Your task to perform on an android device: Search for "bose soundsport free" on target.com, select the first entry, and add it to the cart. Image 0: 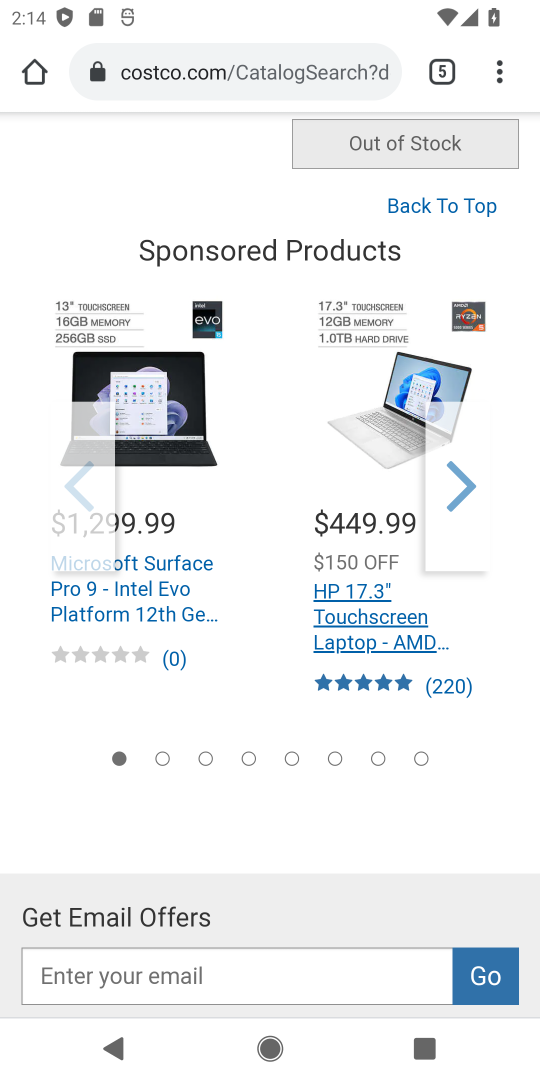
Step 0: press home button
Your task to perform on an android device: Search for "bose soundsport free" on target.com, select the first entry, and add it to the cart. Image 1: 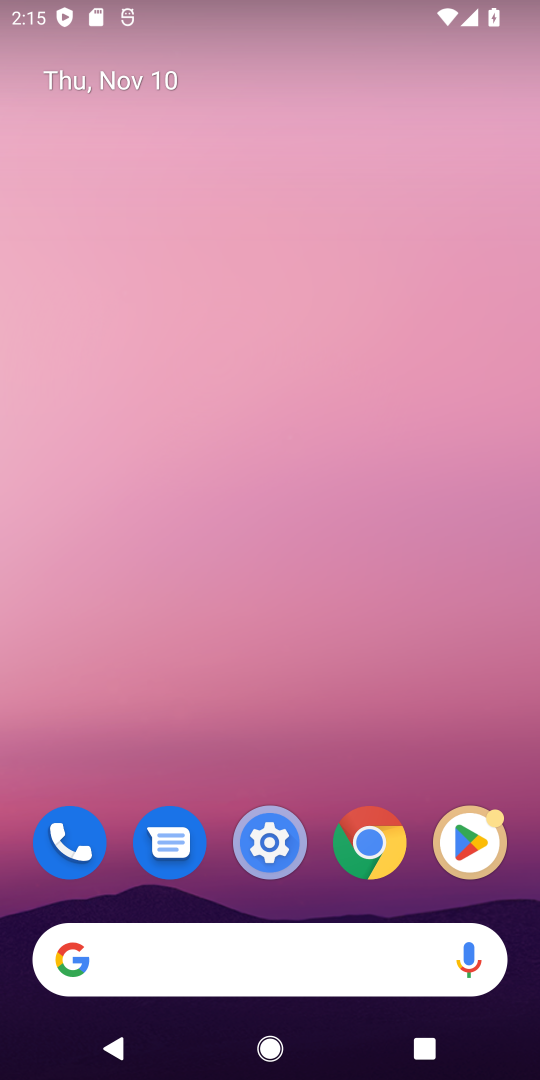
Step 1: click (116, 956)
Your task to perform on an android device: Search for "bose soundsport free" on target.com, select the first entry, and add it to the cart. Image 2: 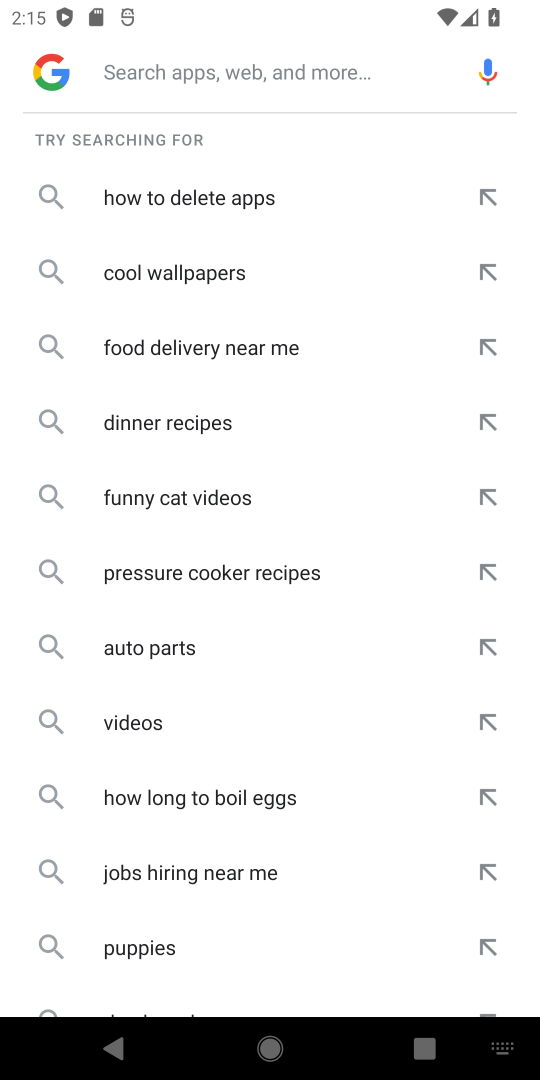
Step 2: type " target.com"
Your task to perform on an android device: Search for "bose soundsport free" on target.com, select the first entry, and add it to the cart. Image 3: 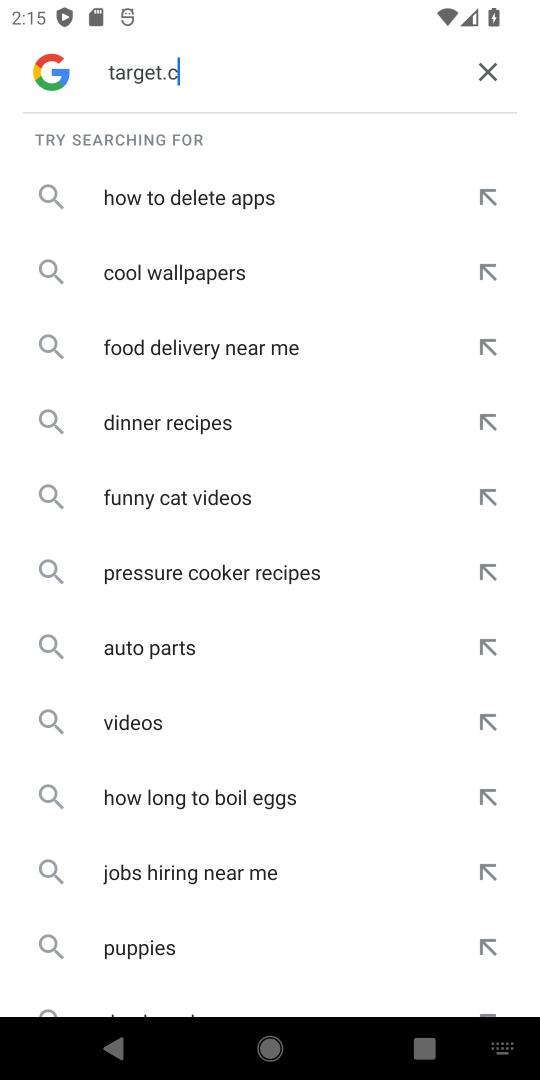
Step 3: press enter
Your task to perform on an android device: Search for "bose soundsport free" on target.com, select the first entry, and add it to the cart. Image 4: 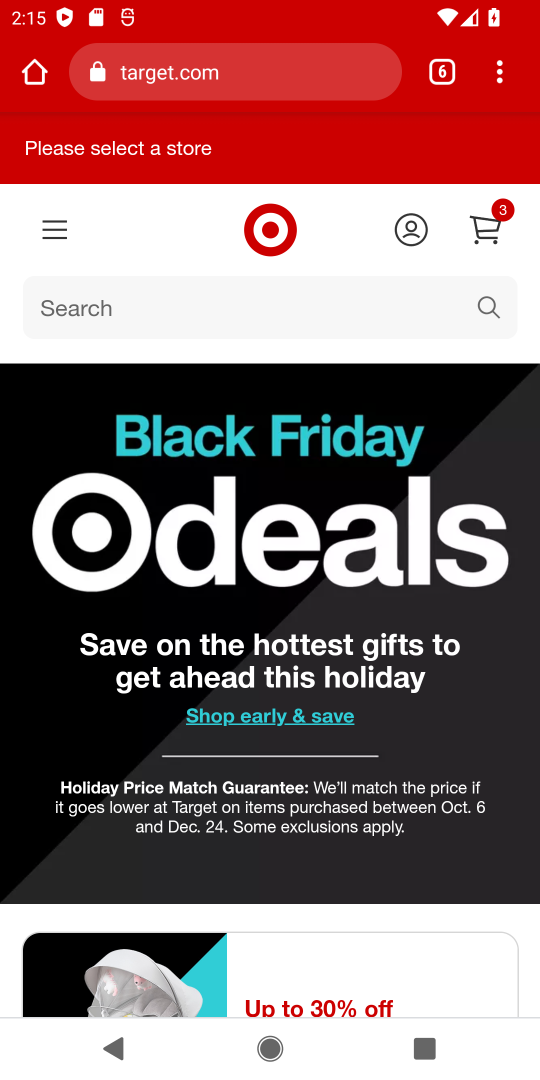
Step 4: click (95, 302)
Your task to perform on an android device: Search for "bose soundsport free" on target.com, select the first entry, and add it to the cart. Image 5: 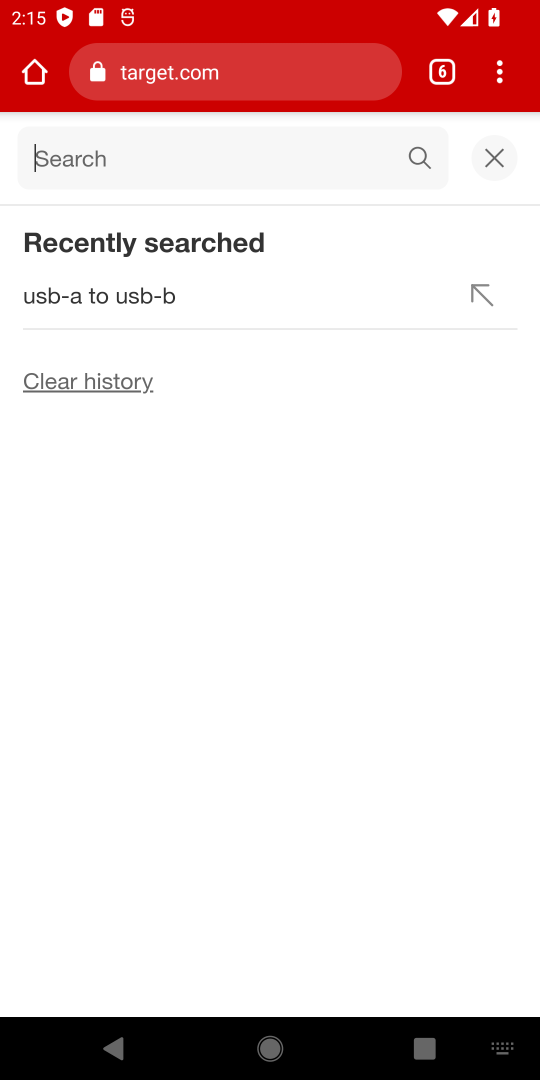
Step 5: type "bose soundsport free"
Your task to perform on an android device: Search for "bose soundsport free" on target.com, select the first entry, and add it to the cart. Image 6: 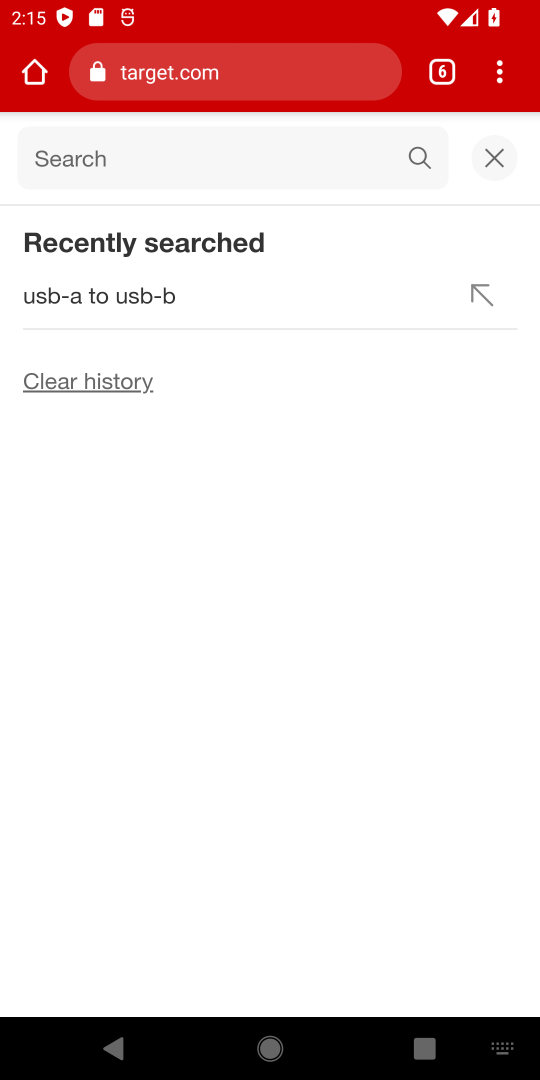
Step 6: press enter
Your task to perform on an android device: Search for "bose soundsport free" on target.com, select the first entry, and add it to the cart. Image 7: 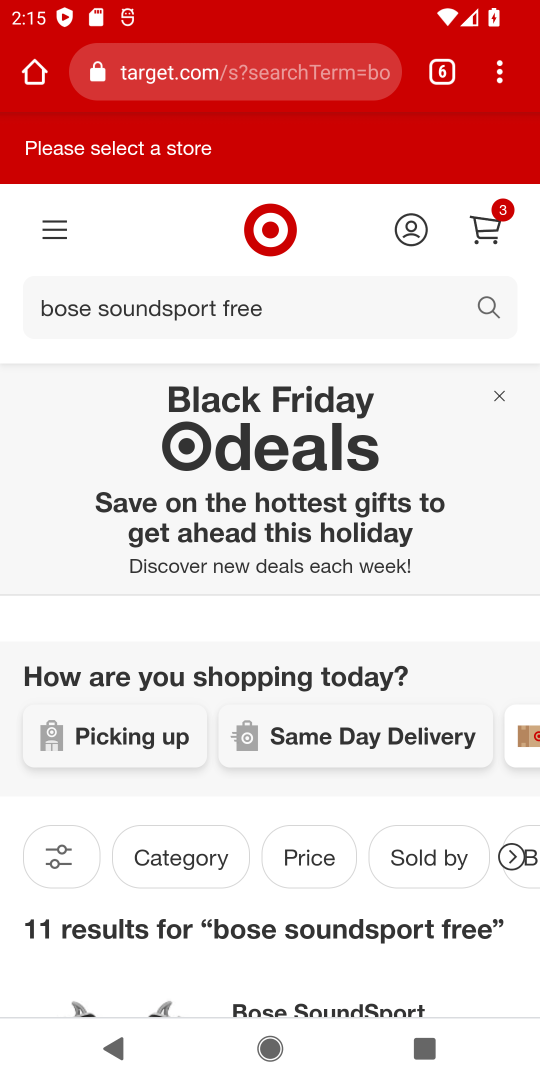
Step 7: task complete